Your task to perform on an android device: Open calendar and show me the first week of next month Image 0: 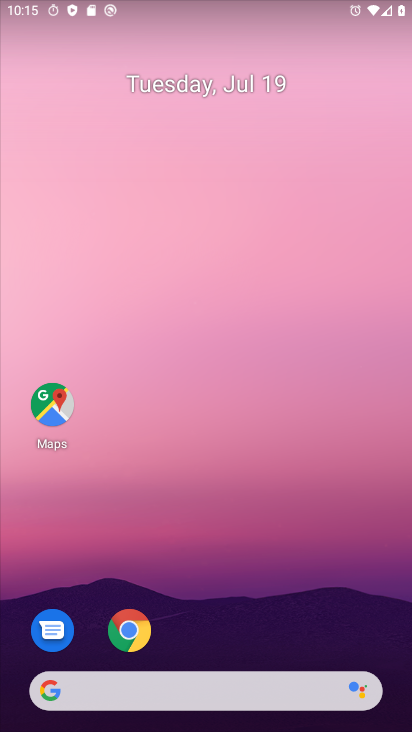
Step 0: drag from (269, 634) to (263, 16)
Your task to perform on an android device: Open calendar and show me the first week of next month Image 1: 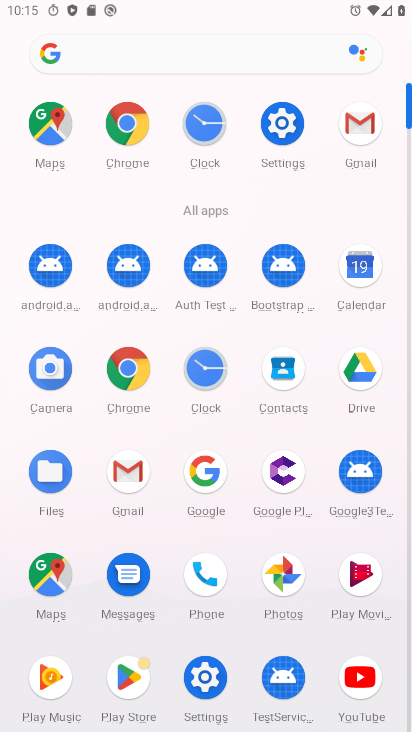
Step 1: click (368, 268)
Your task to perform on an android device: Open calendar and show me the first week of next month Image 2: 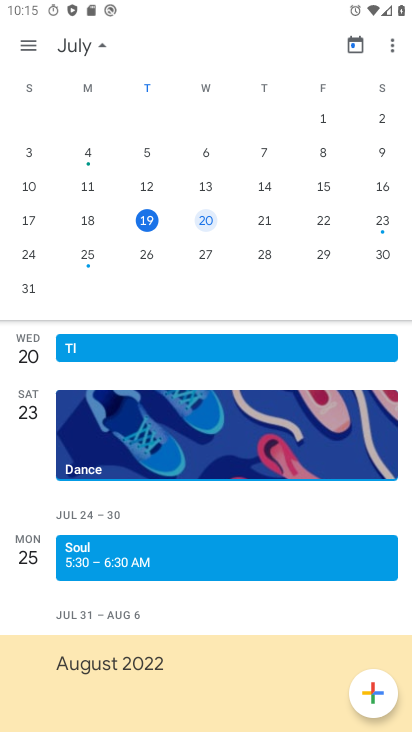
Step 2: drag from (269, 199) to (0, 131)
Your task to perform on an android device: Open calendar and show me the first week of next month Image 3: 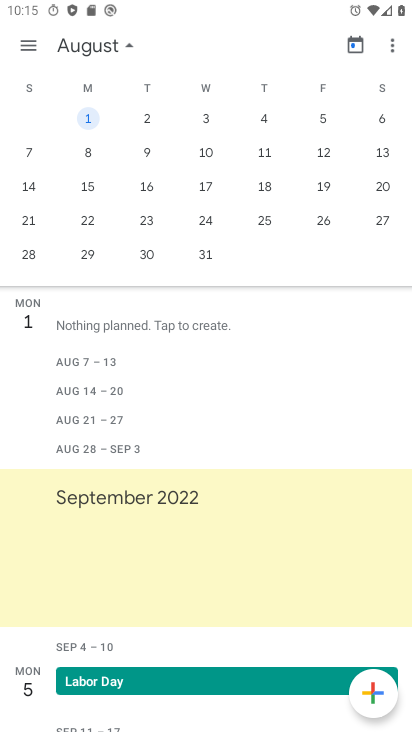
Step 3: click (91, 124)
Your task to perform on an android device: Open calendar and show me the first week of next month Image 4: 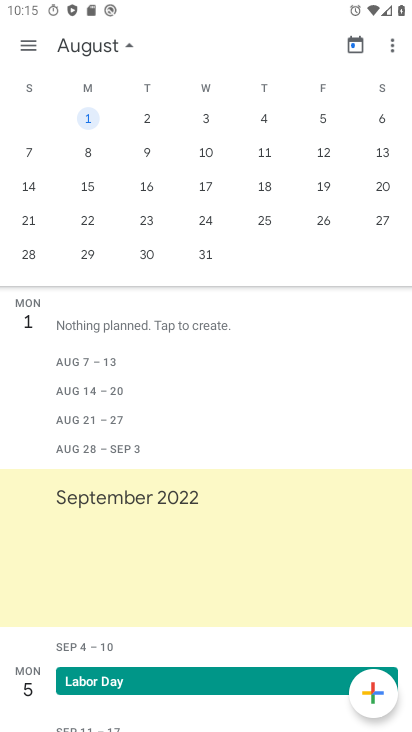
Step 4: click (154, 120)
Your task to perform on an android device: Open calendar and show me the first week of next month Image 5: 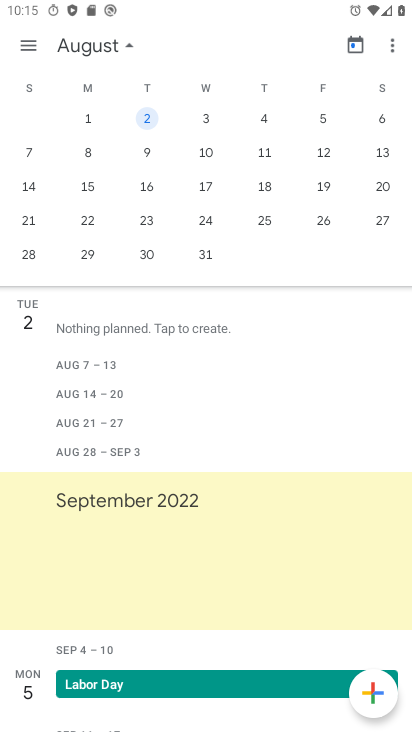
Step 5: click (207, 127)
Your task to perform on an android device: Open calendar and show me the first week of next month Image 6: 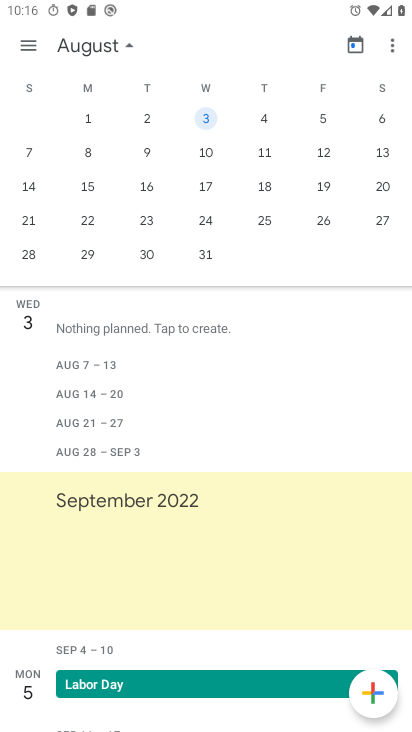
Step 6: click (266, 118)
Your task to perform on an android device: Open calendar and show me the first week of next month Image 7: 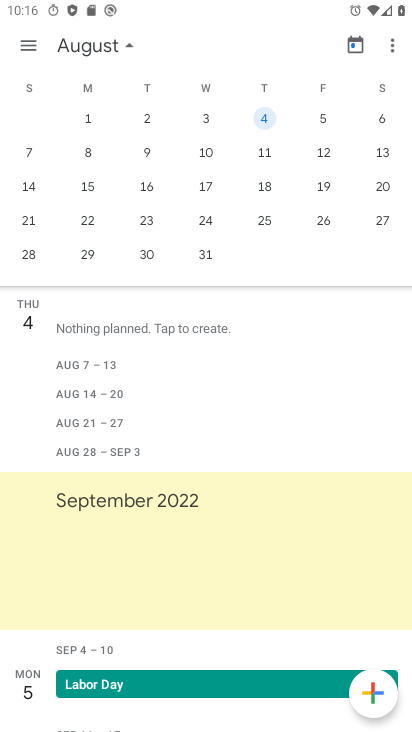
Step 7: click (324, 116)
Your task to perform on an android device: Open calendar and show me the first week of next month Image 8: 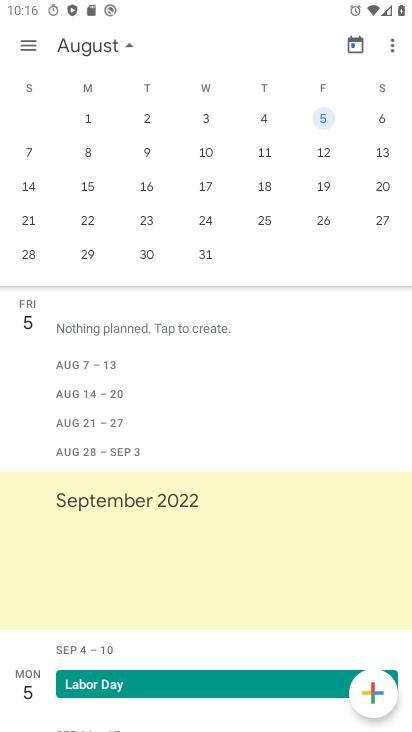
Step 8: click (377, 116)
Your task to perform on an android device: Open calendar and show me the first week of next month Image 9: 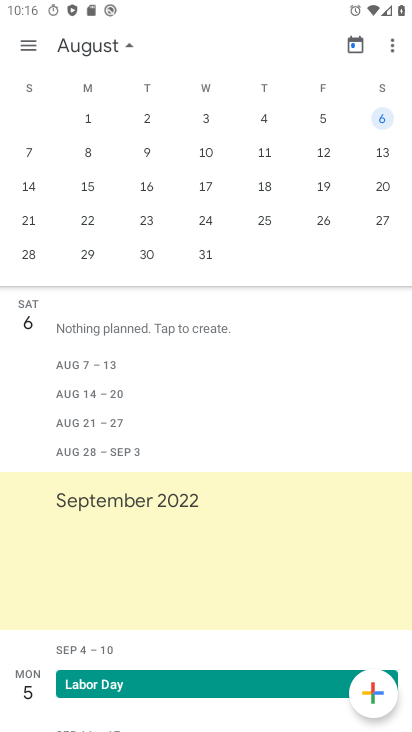
Step 9: click (25, 154)
Your task to perform on an android device: Open calendar and show me the first week of next month Image 10: 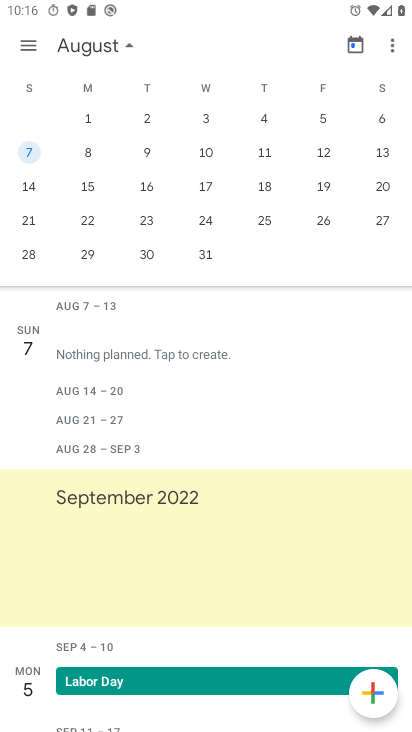
Step 10: task complete